Your task to perform on an android device: toggle javascript in the chrome app Image 0: 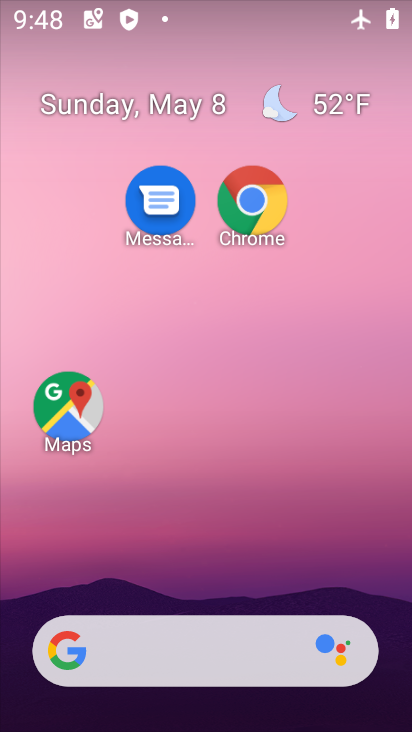
Step 0: drag from (206, 608) to (236, 6)
Your task to perform on an android device: toggle javascript in the chrome app Image 1: 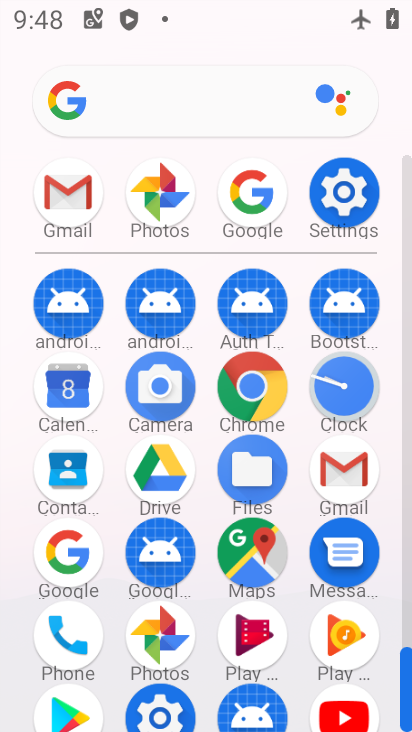
Step 1: click (267, 385)
Your task to perform on an android device: toggle javascript in the chrome app Image 2: 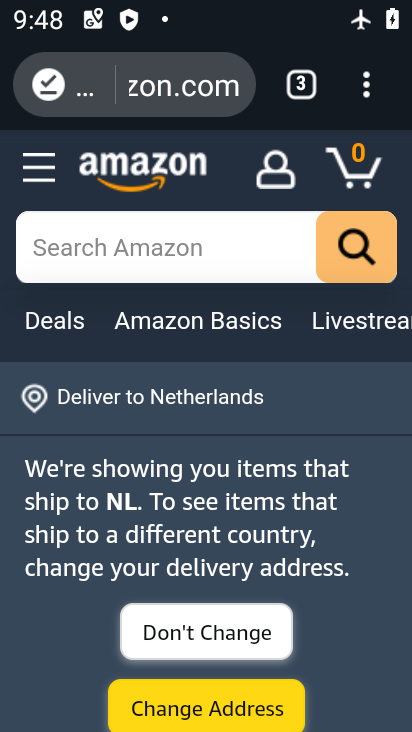
Step 2: click (359, 91)
Your task to perform on an android device: toggle javascript in the chrome app Image 3: 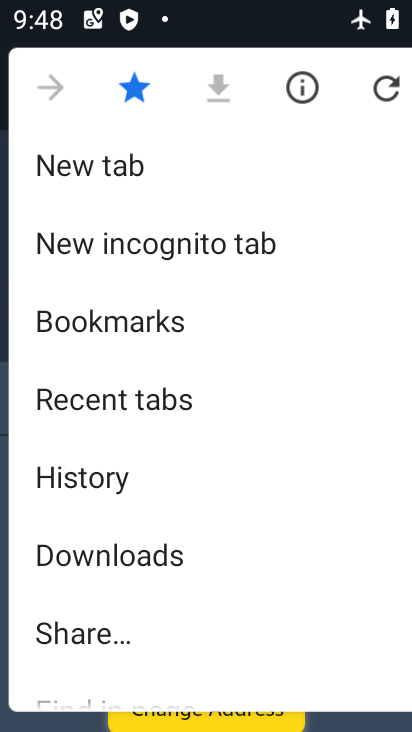
Step 3: drag from (189, 617) to (163, 97)
Your task to perform on an android device: toggle javascript in the chrome app Image 4: 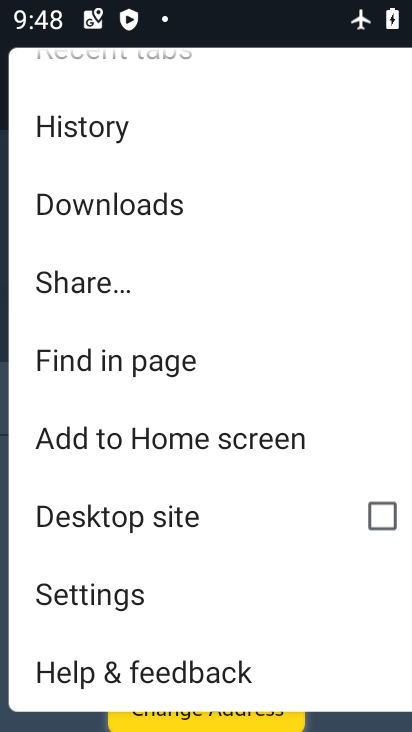
Step 4: click (116, 587)
Your task to perform on an android device: toggle javascript in the chrome app Image 5: 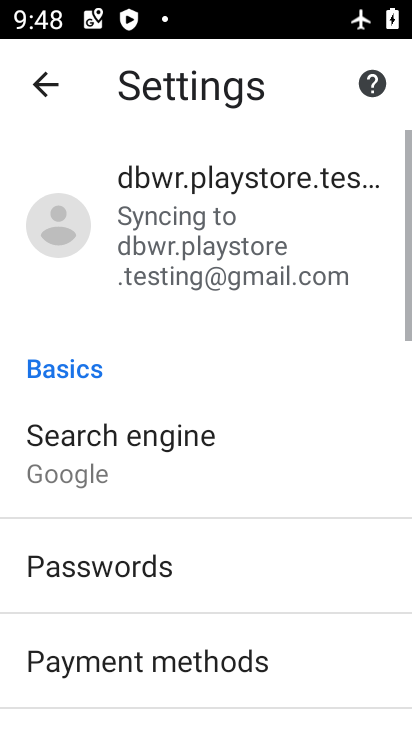
Step 5: drag from (131, 583) to (79, 15)
Your task to perform on an android device: toggle javascript in the chrome app Image 6: 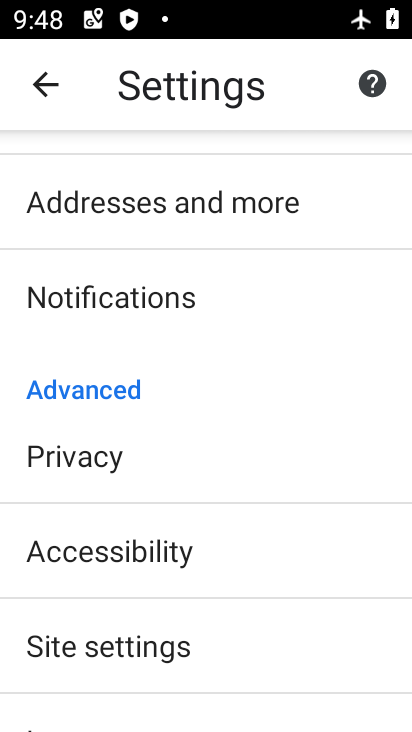
Step 6: click (105, 657)
Your task to perform on an android device: toggle javascript in the chrome app Image 7: 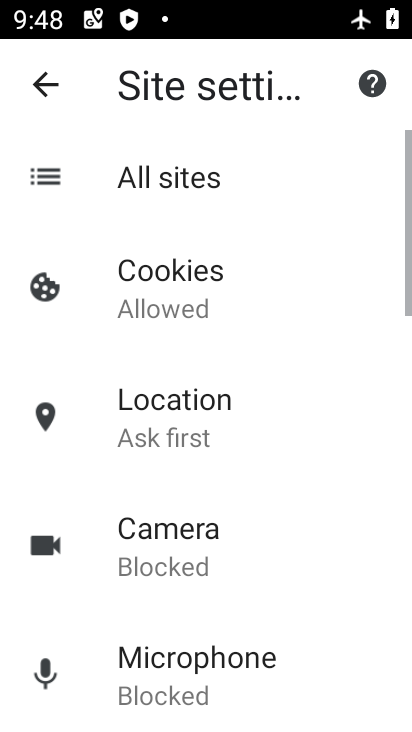
Step 7: drag from (169, 609) to (148, 10)
Your task to perform on an android device: toggle javascript in the chrome app Image 8: 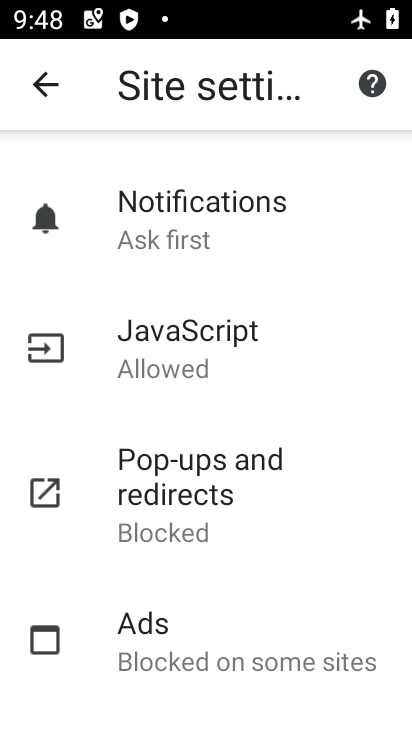
Step 8: click (146, 395)
Your task to perform on an android device: toggle javascript in the chrome app Image 9: 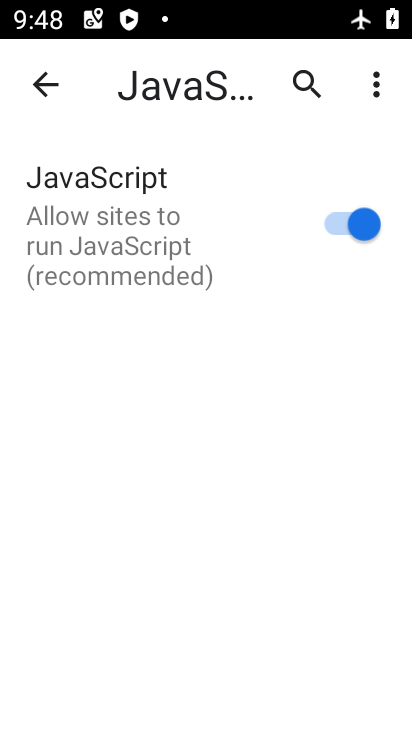
Step 9: click (351, 218)
Your task to perform on an android device: toggle javascript in the chrome app Image 10: 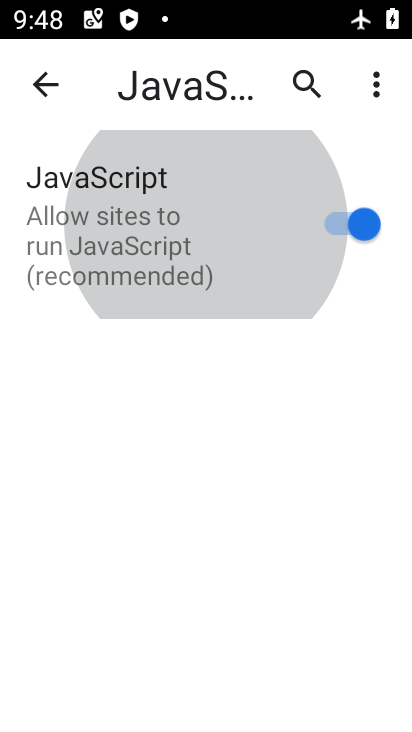
Step 10: task complete